Your task to perform on an android device: turn on bluetooth scan Image 0: 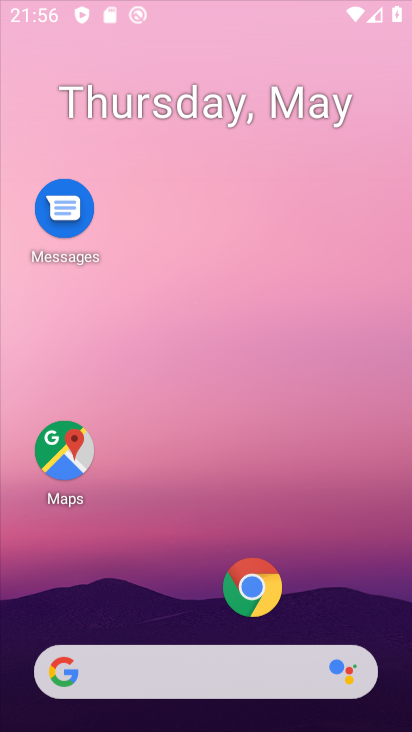
Step 0: click (170, 82)
Your task to perform on an android device: turn on bluetooth scan Image 1: 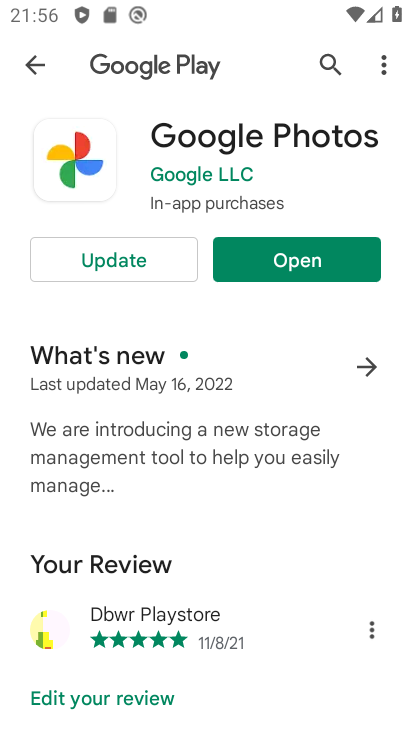
Step 1: press home button
Your task to perform on an android device: turn on bluetooth scan Image 2: 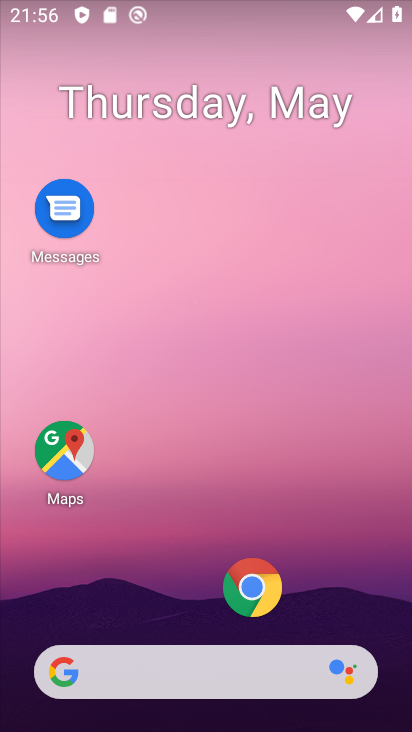
Step 2: drag from (203, 632) to (126, 29)
Your task to perform on an android device: turn on bluetooth scan Image 3: 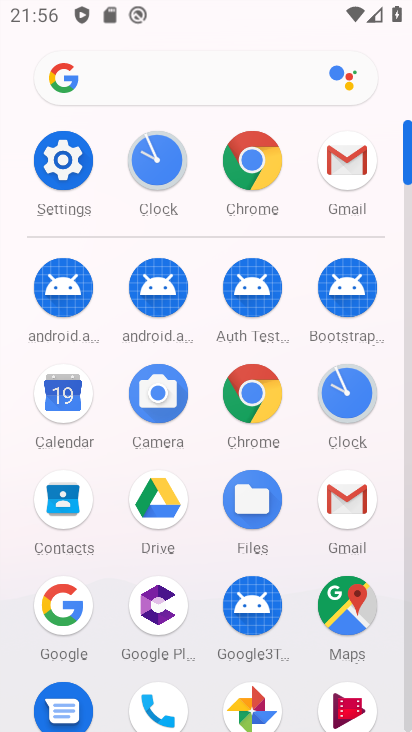
Step 3: click (67, 170)
Your task to perform on an android device: turn on bluetooth scan Image 4: 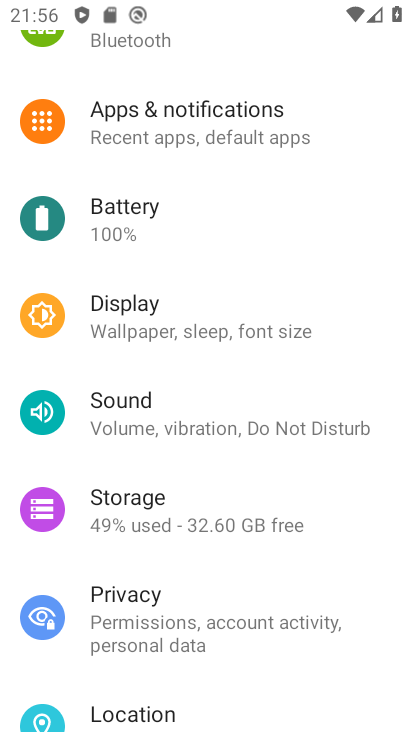
Step 4: click (129, 693)
Your task to perform on an android device: turn on bluetooth scan Image 5: 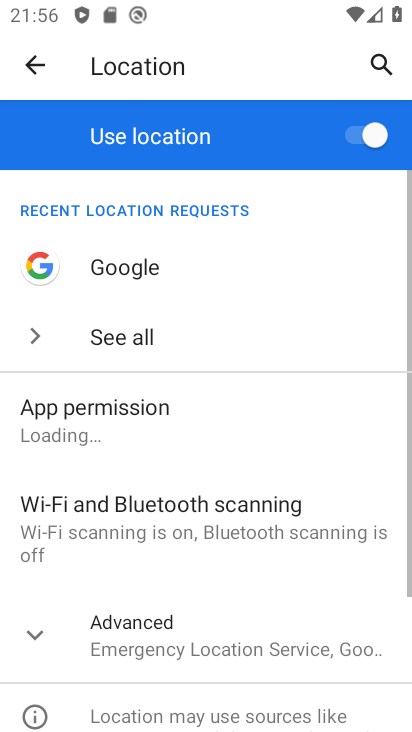
Step 5: click (171, 534)
Your task to perform on an android device: turn on bluetooth scan Image 6: 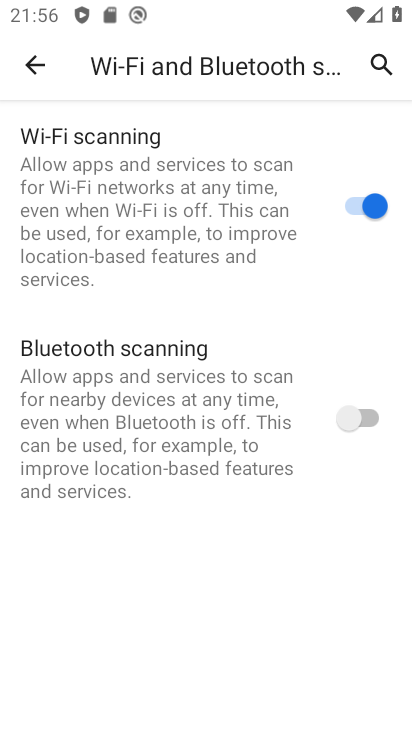
Step 6: click (352, 422)
Your task to perform on an android device: turn on bluetooth scan Image 7: 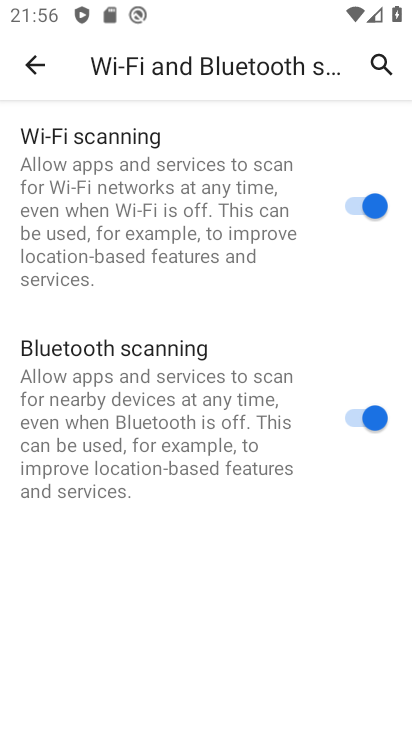
Step 7: task complete